Your task to perform on an android device: Open Chrome and go to settings Image 0: 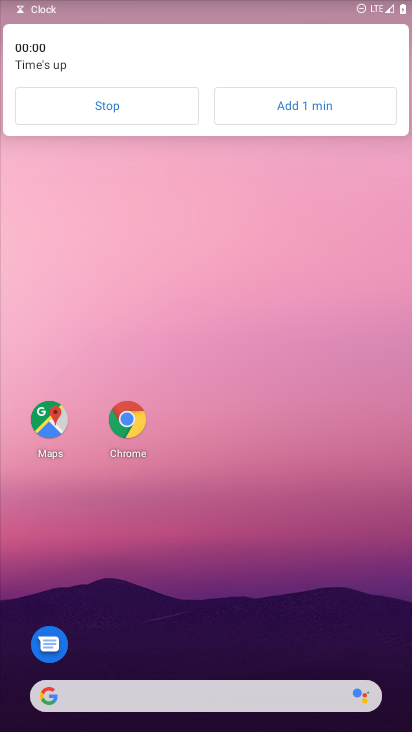
Step 0: drag from (206, 657) to (221, 8)
Your task to perform on an android device: Open Chrome and go to settings Image 1: 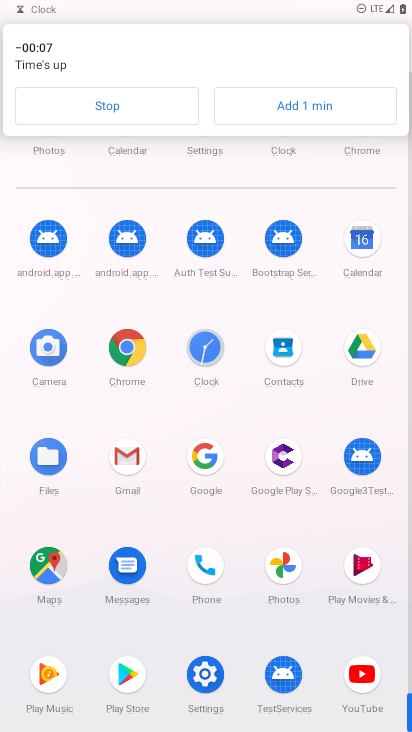
Step 1: click (216, 683)
Your task to perform on an android device: Open Chrome and go to settings Image 2: 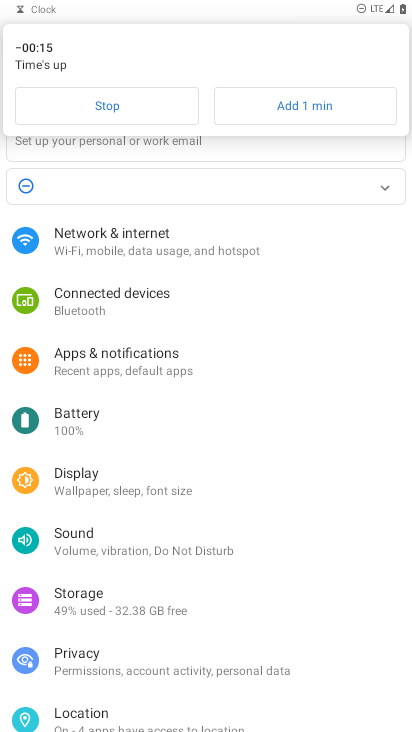
Step 2: drag from (201, 648) to (205, 177)
Your task to perform on an android device: Open Chrome and go to settings Image 3: 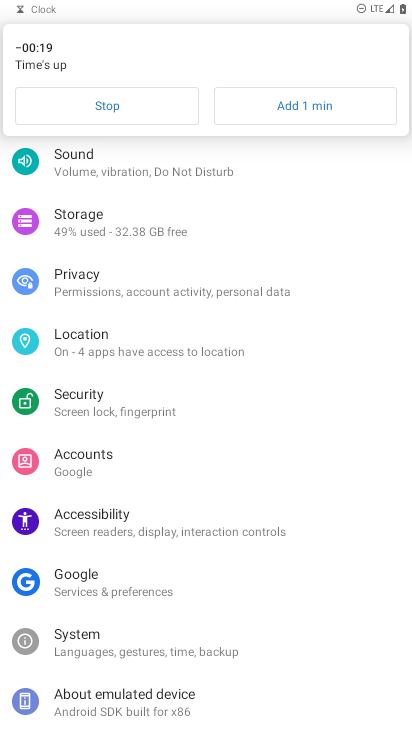
Step 3: press home button
Your task to perform on an android device: Open Chrome and go to settings Image 4: 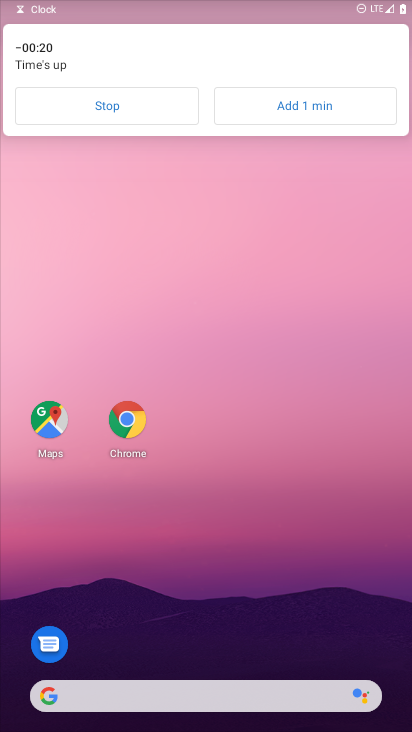
Step 4: drag from (240, 526) to (127, 15)
Your task to perform on an android device: Open Chrome and go to settings Image 5: 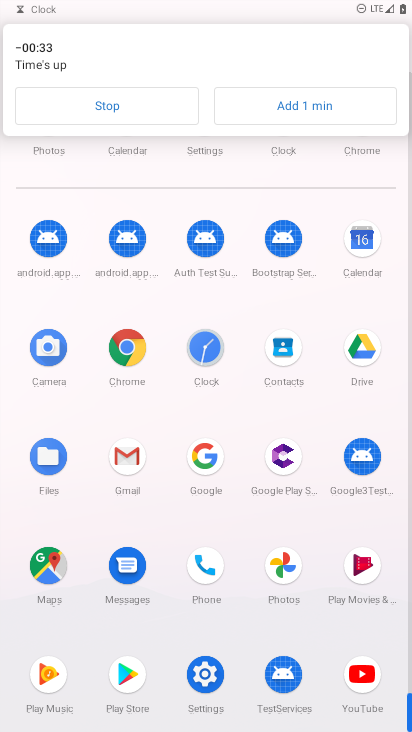
Step 5: click (97, 100)
Your task to perform on an android device: Open Chrome and go to settings Image 6: 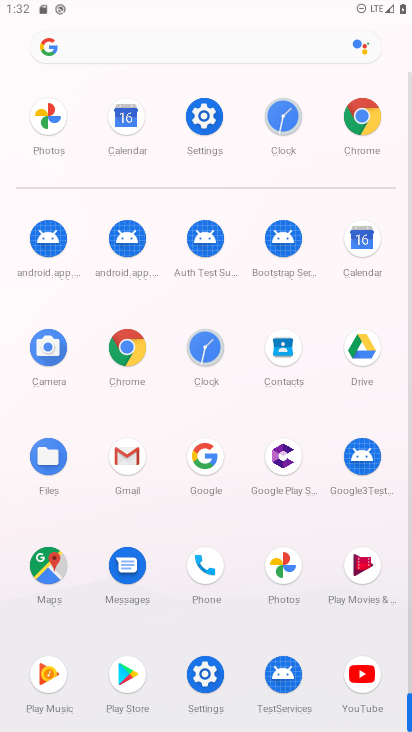
Step 6: click (350, 113)
Your task to perform on an android device: Open Chrome and go to settings Image 7: 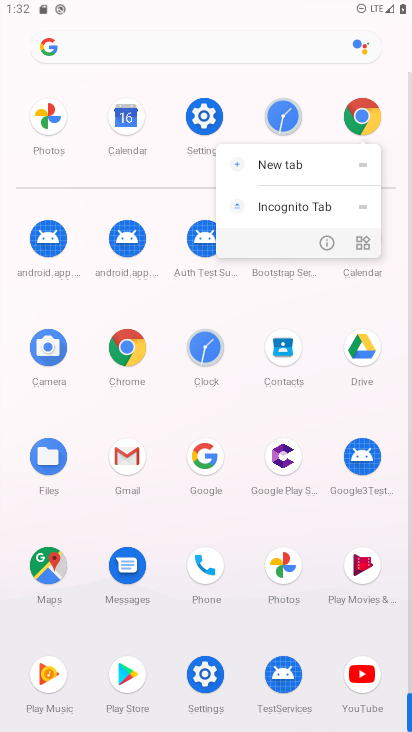
Step 7: click (330, 249)
Your task to perform on an android device: Open Chrome and go to settings Image 8: 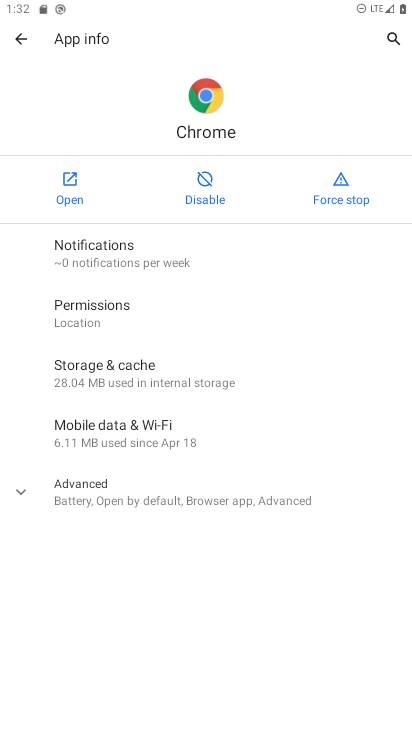
Step 8: click (64, 196)
Your task to perform on an android device: Open Chrome and go to settings Image 9: 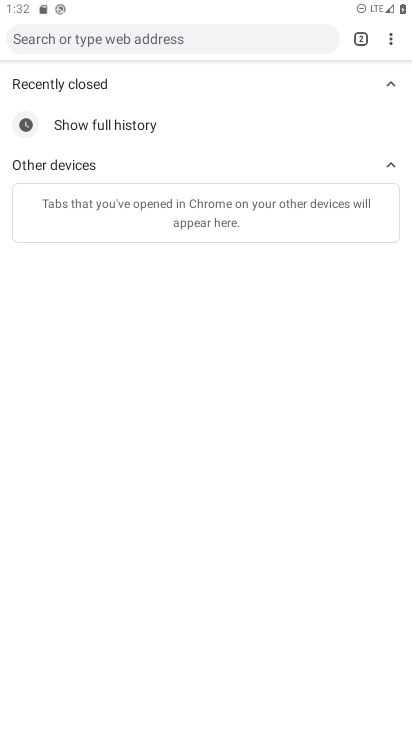
Step 9: click (393, 46)
Your task to perform on an android device: Open Chrome and go to settings Image 10: 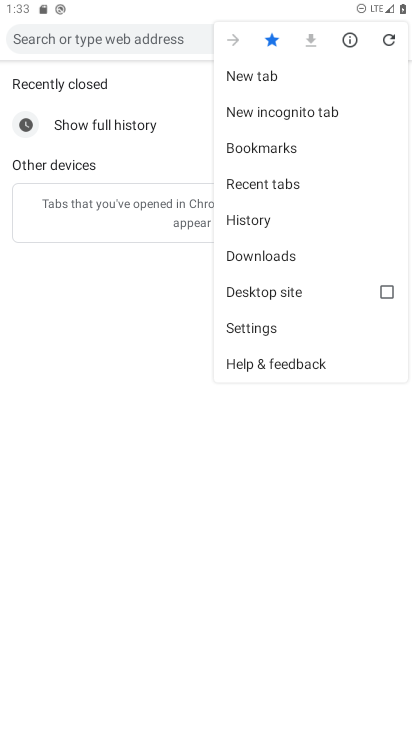
Step 10: click (267, 329)
Your task to perform on an android device: Open Chrome and go to settings Image 11: 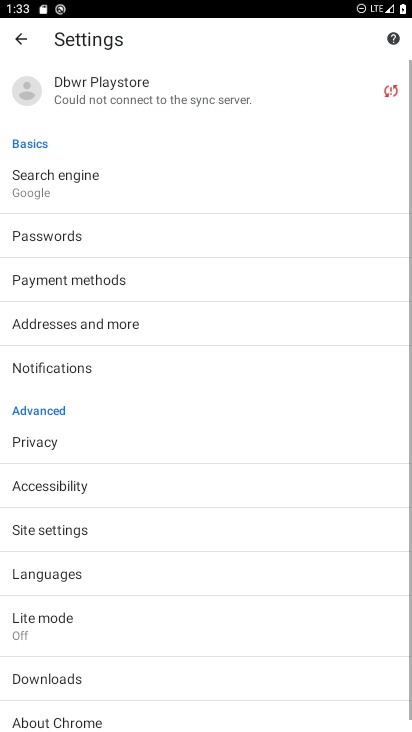
Step 11: task complete